Your task to perform on an android device: set the timer Image 0: 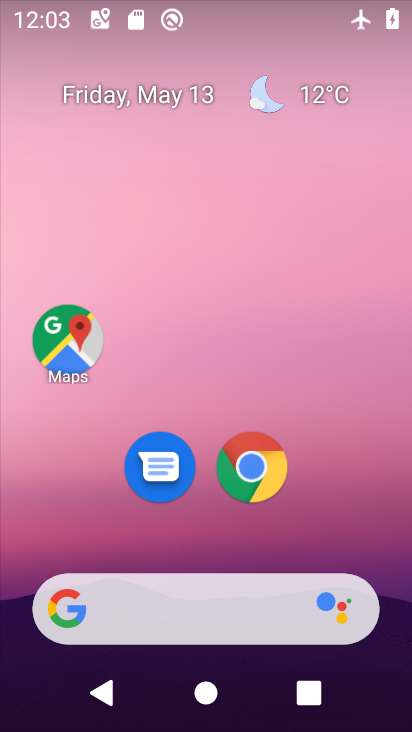
Step 0: drag from (323, 531) to (197, 80)
Your task to perform on an android device: set the timer Image 1: 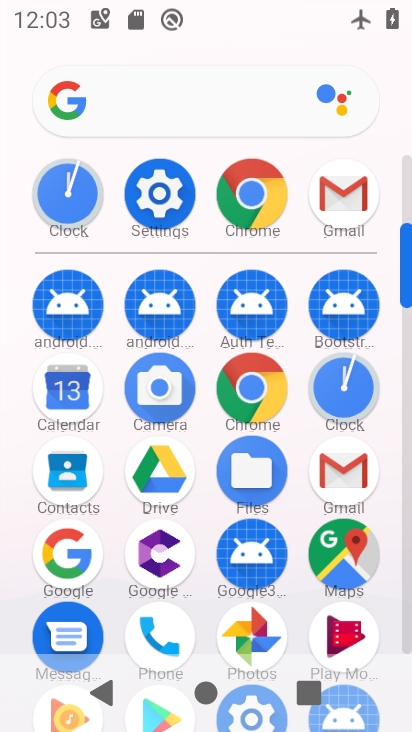
Step 1: click (349, 393)
Your task to perform on an android device: set the timer Image 2: 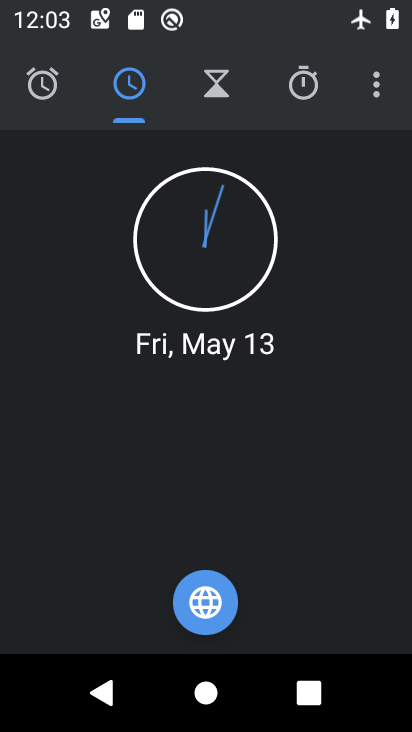
Step 2: click (221, 67)
Your task to perform on an android device: set the timer Image 3: 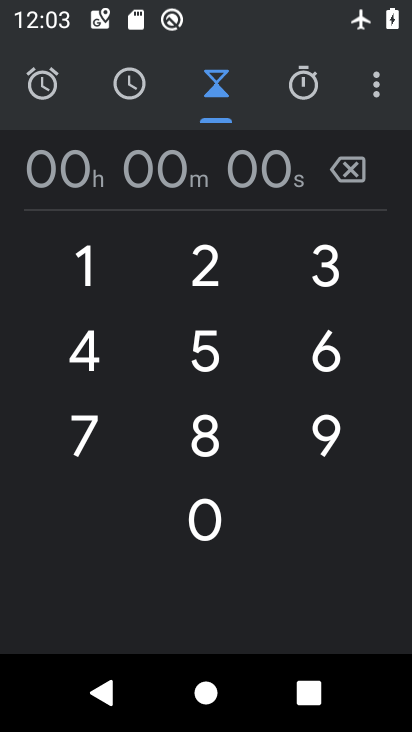
Step 3: click (92, 275)
Your task to perform on an android device: set the timer Image 4: 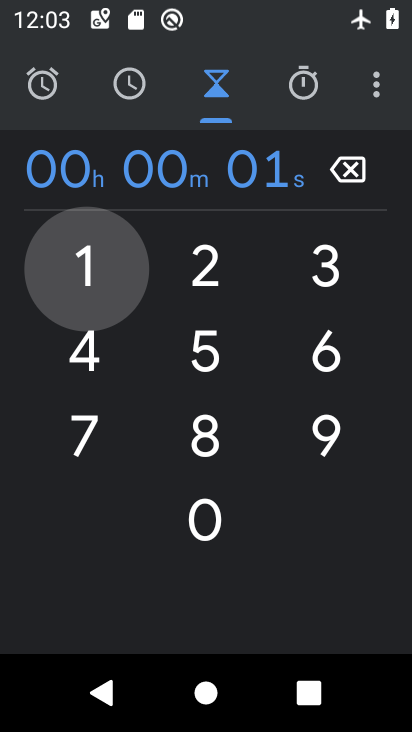
Step 4: click (92, 275)
Your task to perform on an android device: set the timer Image 5: 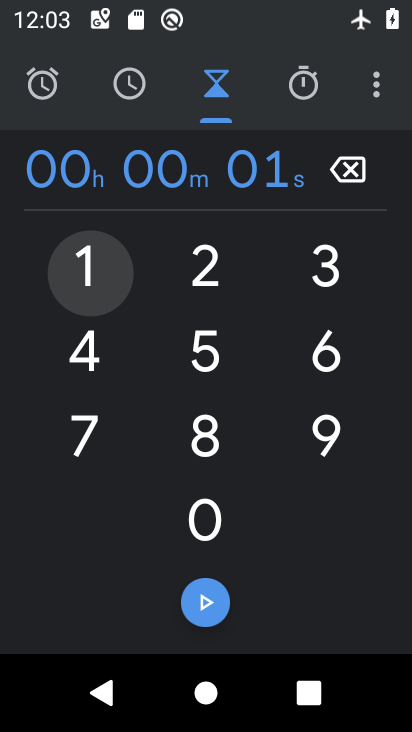
Step 5: click (92, 275)
Your task to perform on an android device: set the timer Image 6: 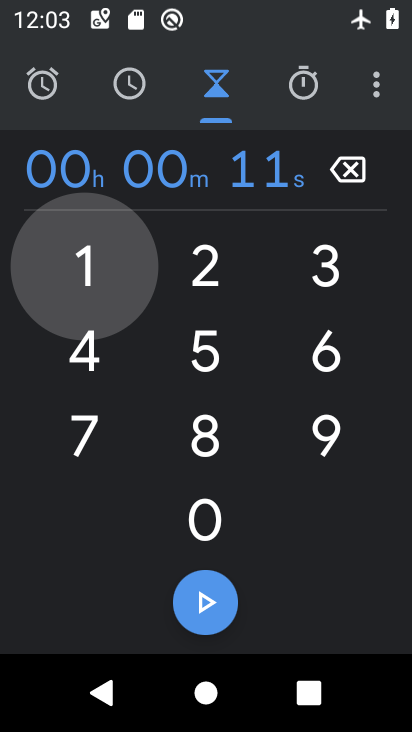
Step 6: click (92, 275)
Your task to perform on an android device: set the timer Image 7: 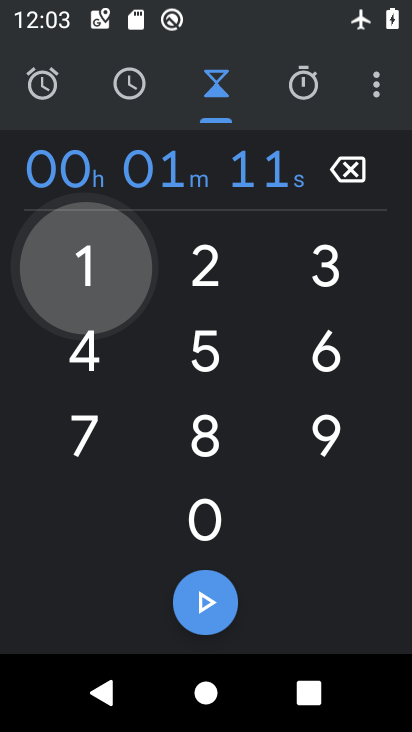
Step 7: click (92, 275)
Your task to perform on an android device: set the timer Image 8: 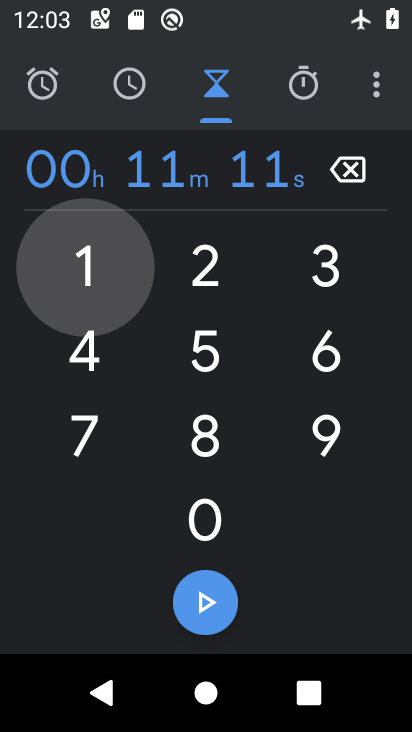
Step 8: click (92, 275)
Your task to perform on an android device: set the timer Image 9: 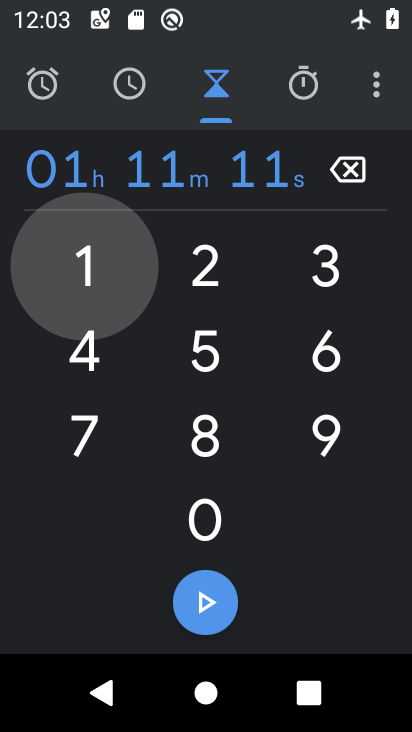
Step 9: click (92, 275)
Your task to perform on an android device: set the timer Image 10: 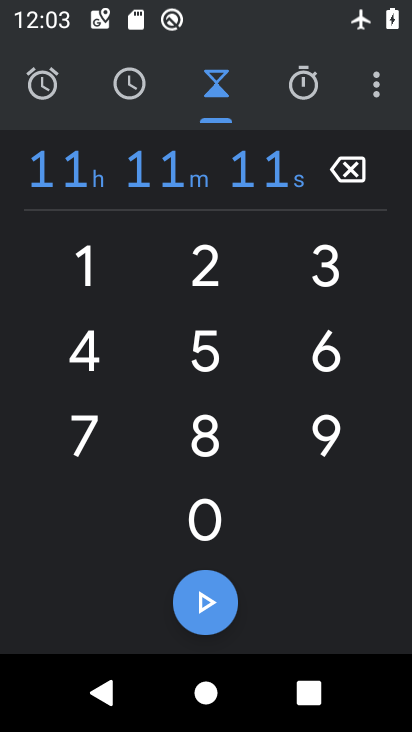
Step 10: click (215, 611)
Your task to perform on an android device: set the timer Image 11: 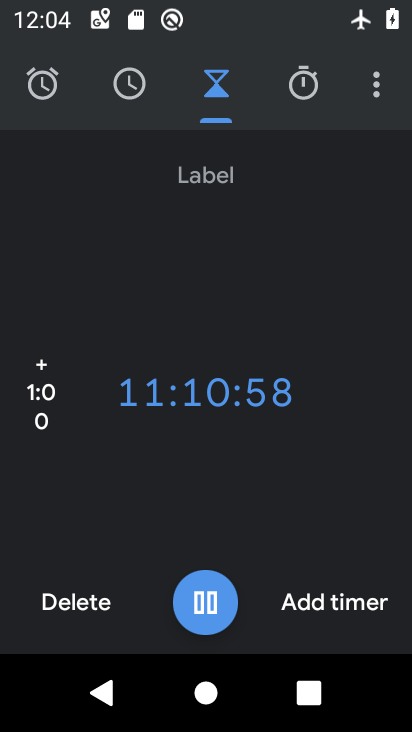
Step 11: task complete